Your task to perform on an android device: change the clock style Image 0: 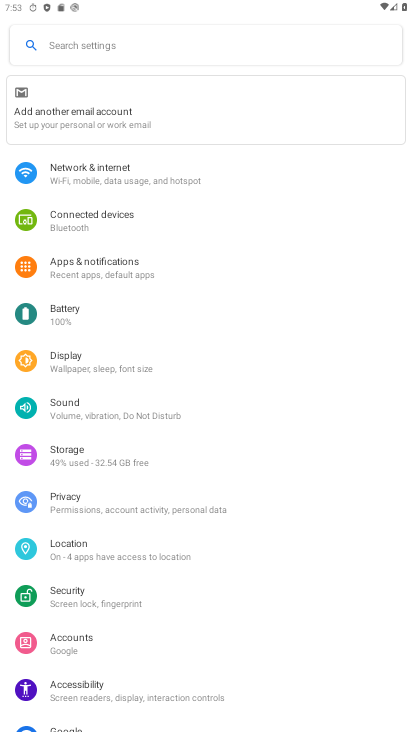
Step 0: press home button
Your task to perform on an android device: change the clock style Image 1: 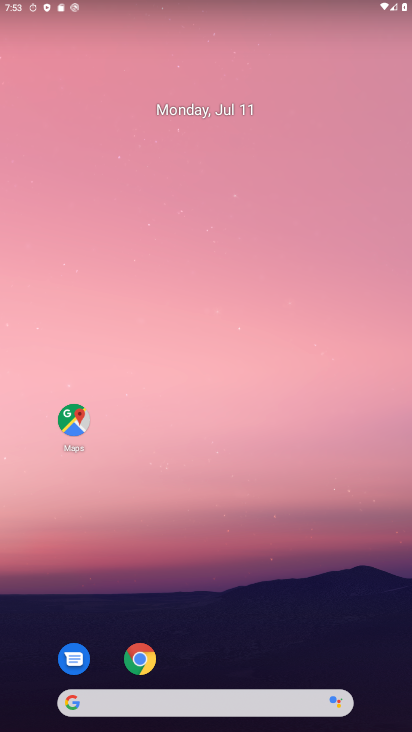
Step 1: drag from (281, 618) to (324, 43)
Your task to perform on an android device: change the clock style Image 2: 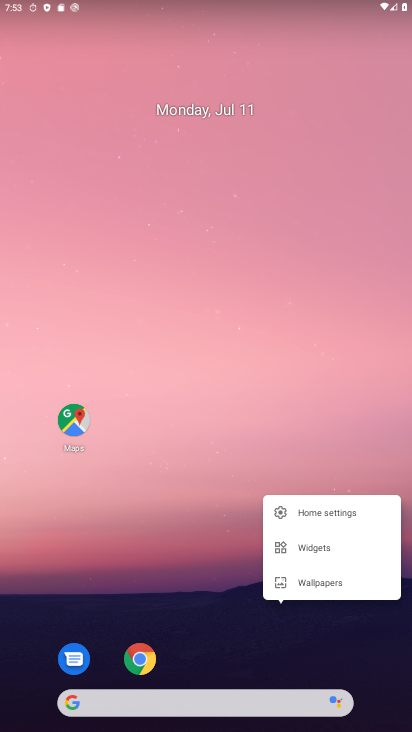
Step 2: click (187, 499)
Your task to perform on an android device: change the clock style Image 3: 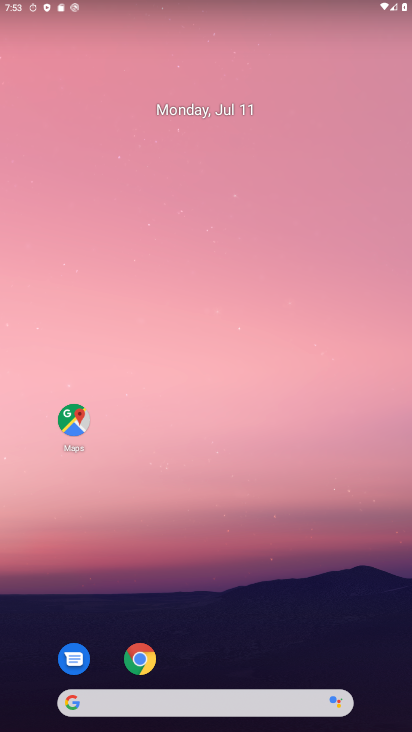
Step 3: drag from (275, 635) to (222, 35)
Your task to perform on an android device: change the clock style Image 4: 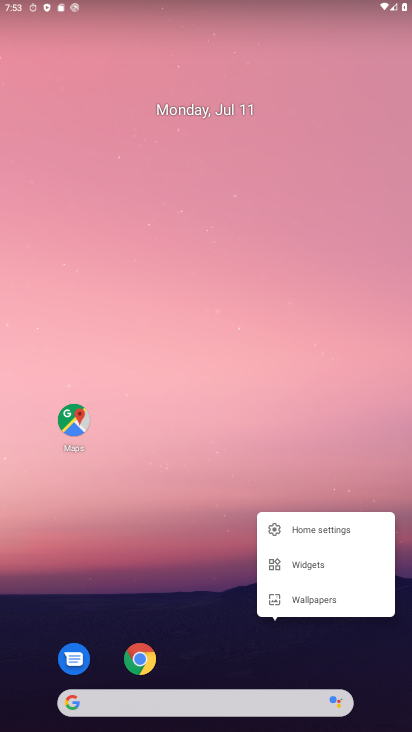
Step 4: click (212, 424)
Your task to perform on an android device: change the clock style Image 5: 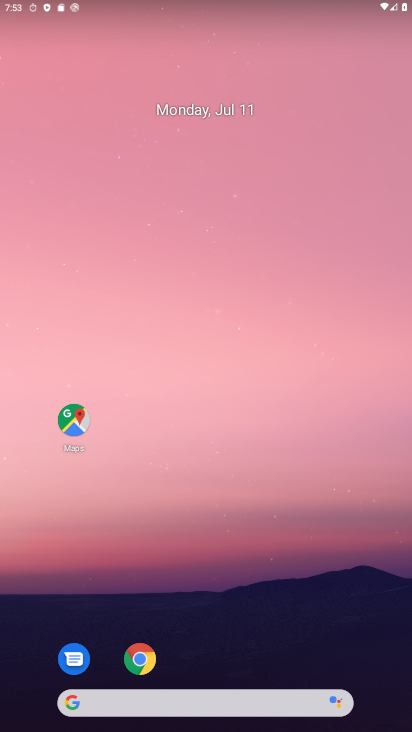
Step 5: drag from (273, 602) to (311, 75)
Your task to perform on an android device: change the clock style Image 6: 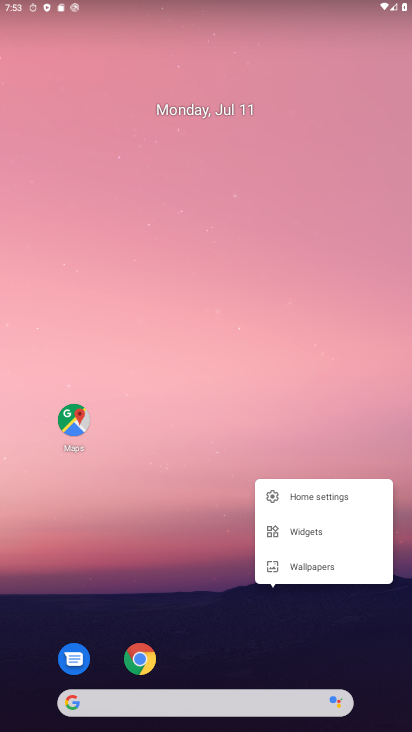
Step 6: click (241, 599)
Your task to perform on an android device: change the clock style Image 7: 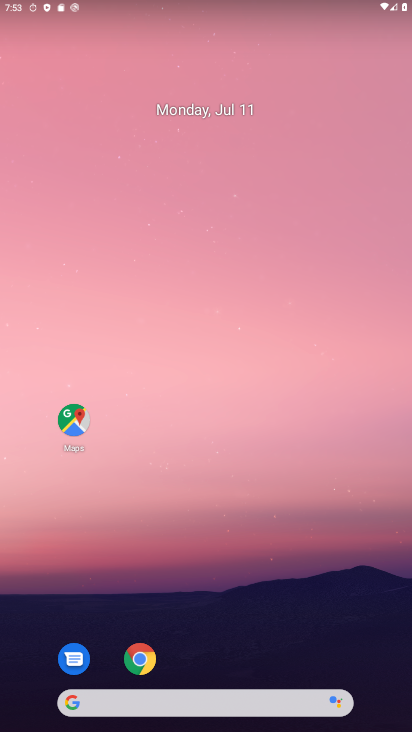
Step 7: drag from (269, 656) to (341, 0)
Your task to perform on an android device: change the clock style Image 8: 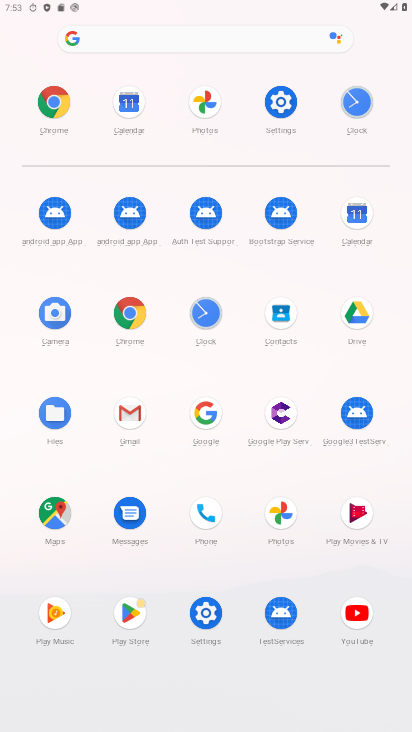
Step 8: drag from (326, 601) to (411, 8)
Your task to perform on an android device: change the clock style Image 9: 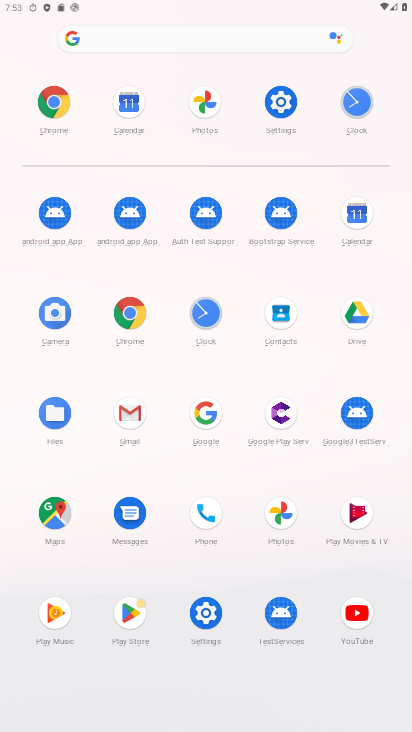
Step 9: click (348, 97)
Your task to perform on an android device: change the clock style Image 10: 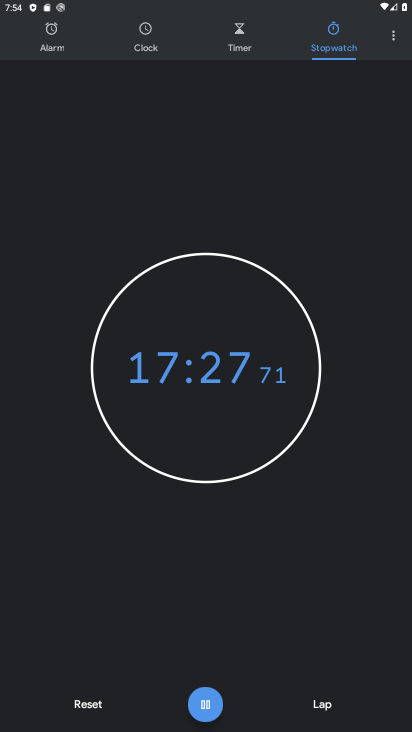
Step 10: click (393, 39)
Your task to perform on an android device: change the clock style Image 11: 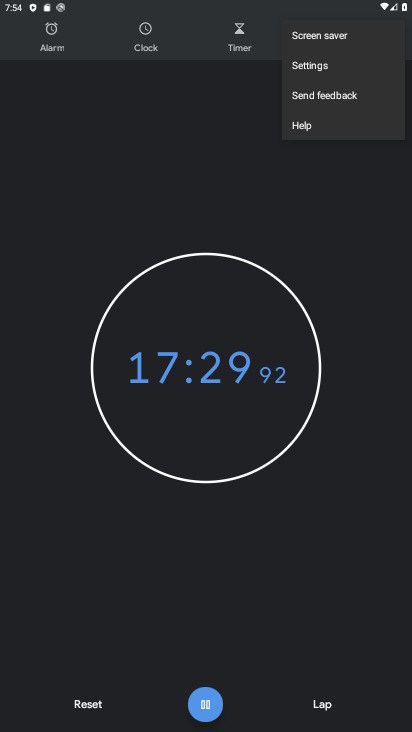
Step 11: click (325, 68)
Your task to perform on an android device: change the clock style Image 12: 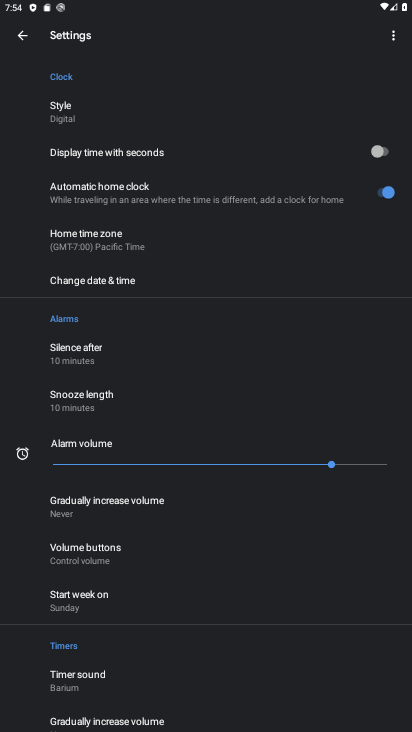
Step 12: click (70, 116)
Your task to perform on an android device: change the clock style Image 13: 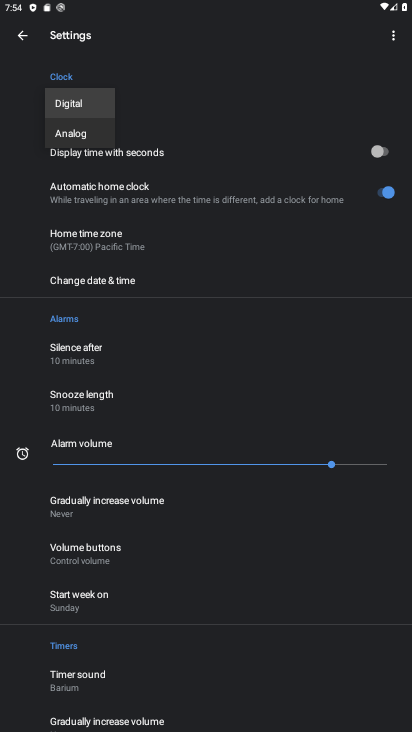
Step 13: click (70, 132)
Your task to perform on an android device: change the clock style Image 14: 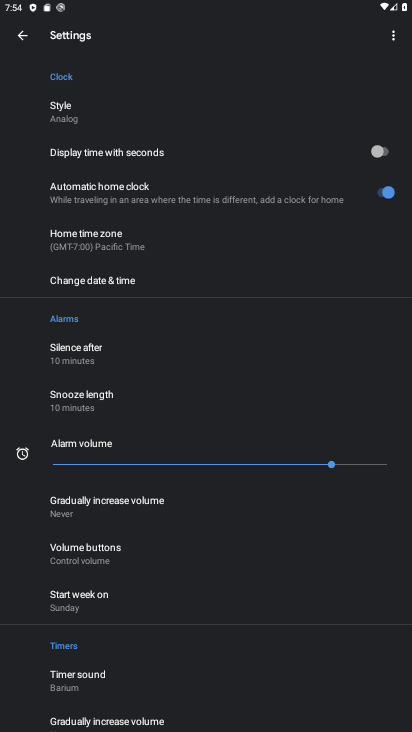
Step 14: task complete